Your task to perform on an android device: open chrome and create a bookmark for the current page Image 0: 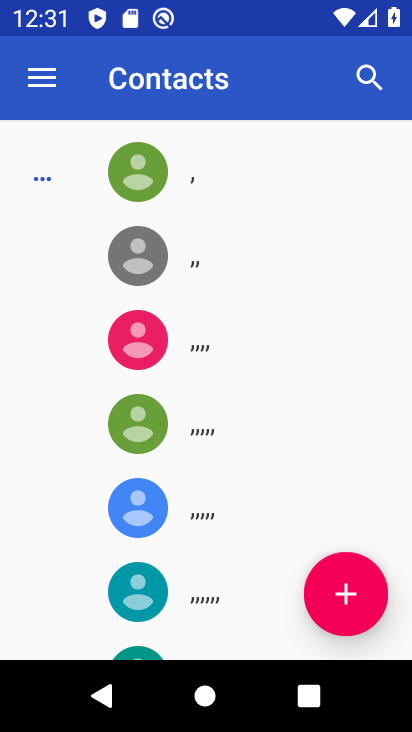
Step 0: press home button
Your task to perform on an android device: open chrome and create a bookmark for the current page Image 1: 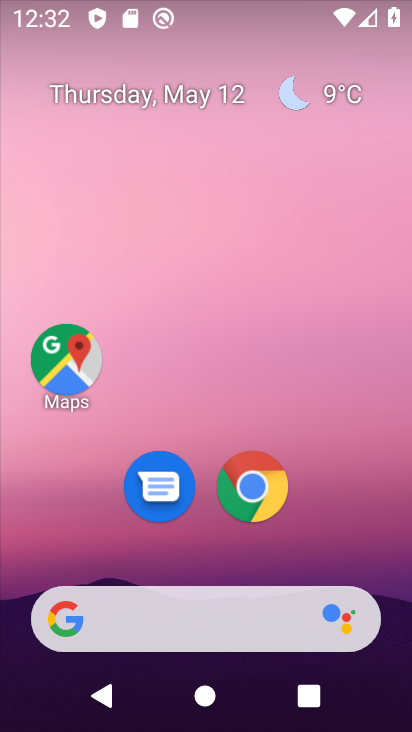
Step 1: click (261, 493)
Your task to perform on an android device: open chrome and create a bookmark for the current page Image 2: 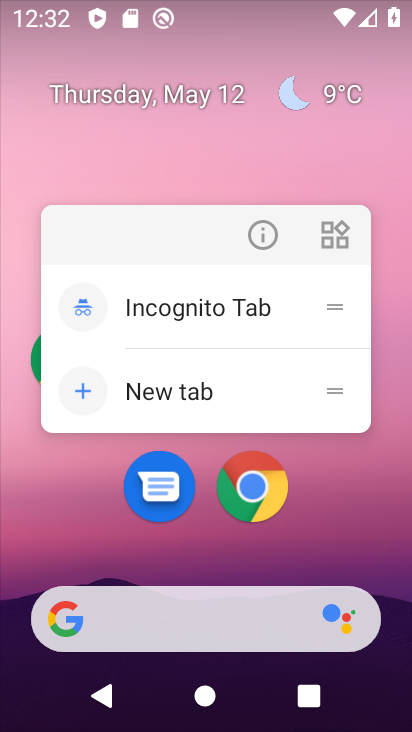
Step 2: click (261, 493)
Your task to perform on an android device: open chrome and create a bookmark for the current page Image 3: 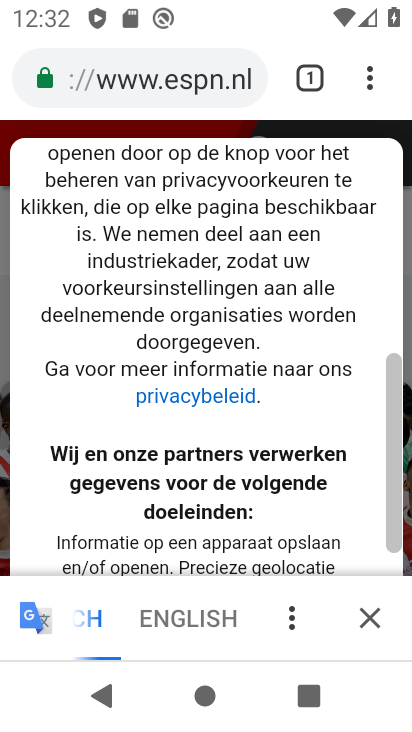
Step 3: click (369, 80)
Your task to perform on an android device: open chrome and create a bookmark for the current page Image 4: 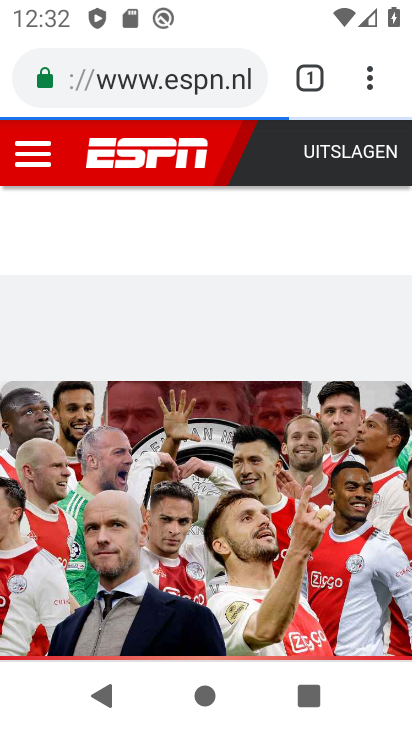
Step 4: click (369, 79)
Your task to perform on an android device: open chrome and create a bookmark for the current page Image 5: 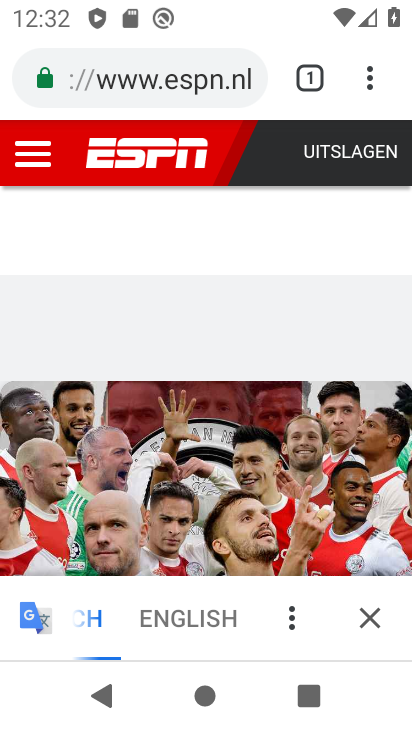
Step 5: click (369, 79)
Your task to perform on an android device: open chrome and create a bookmark for the current page Image 6: 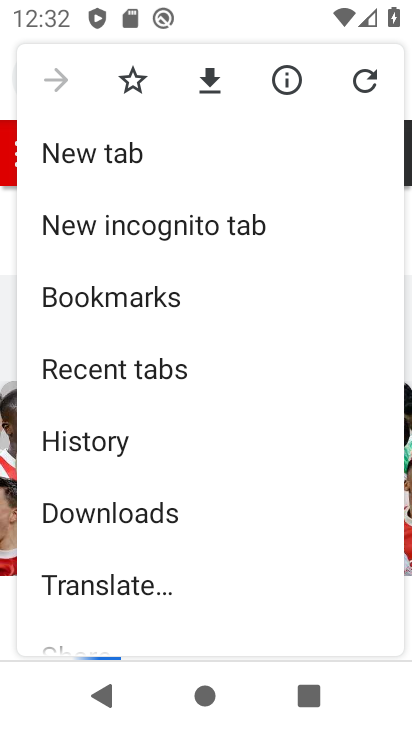
Step 6: click (125, 77)
Your task to perform on an android device: open chrome and create a bookmark for the current page Image 7: 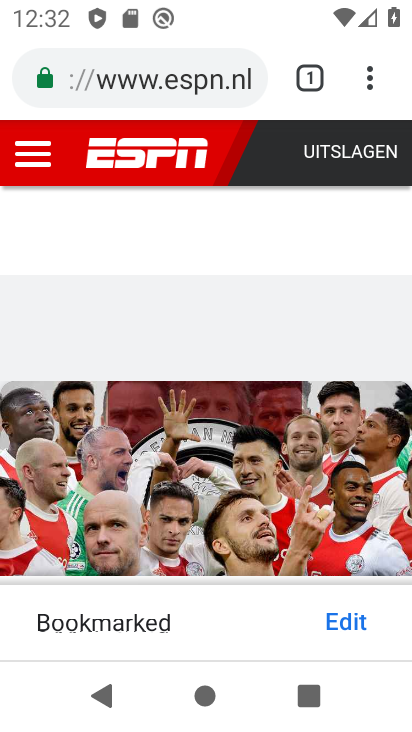
Step 7: task complete